Your task to perform on an android device: delete browsing data in the chrome app Image 0: 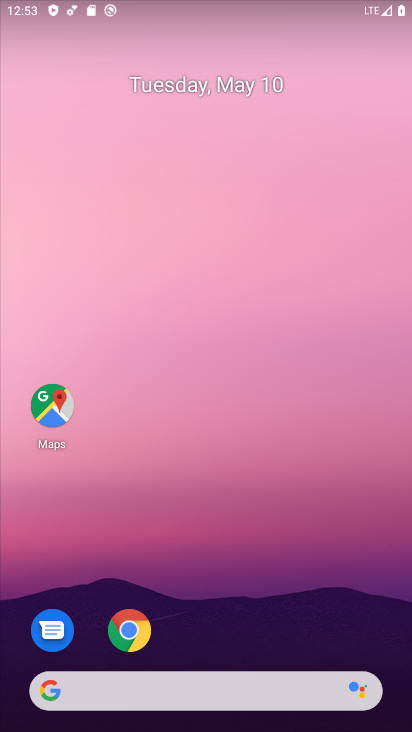
Step 0: drag from (212, 659) to (219, 20)
Your task to perform on an android device: delete browsing data in the chrome app Image 1: 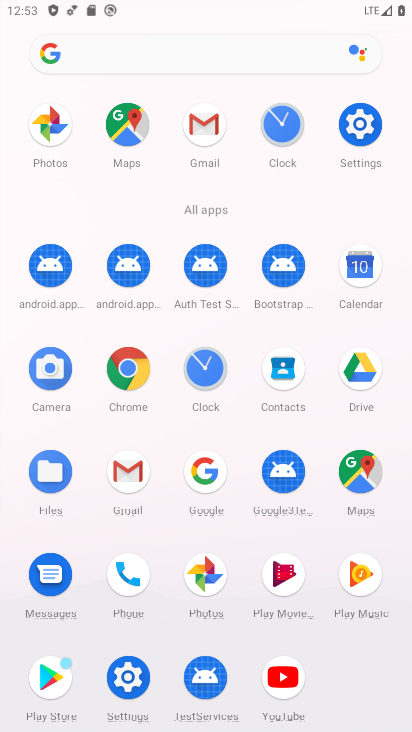
Step 1: click (116, 364)
Your task to perform on an android device: delete browsing data in the chrome app Image 2: 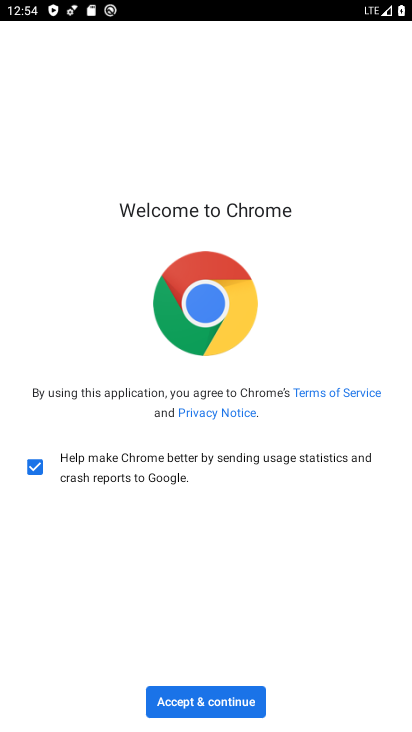
Step 2: click (216, 700)
Your task to perform on an android device: delete browsing data in the chrome app Image 3: 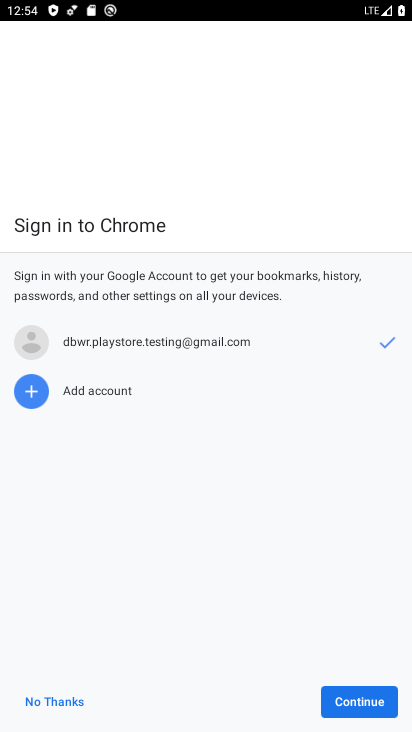
Step 3: click (336, 697)
Your task to perform on an android device: delete browsing data in the chrome app Image 4: 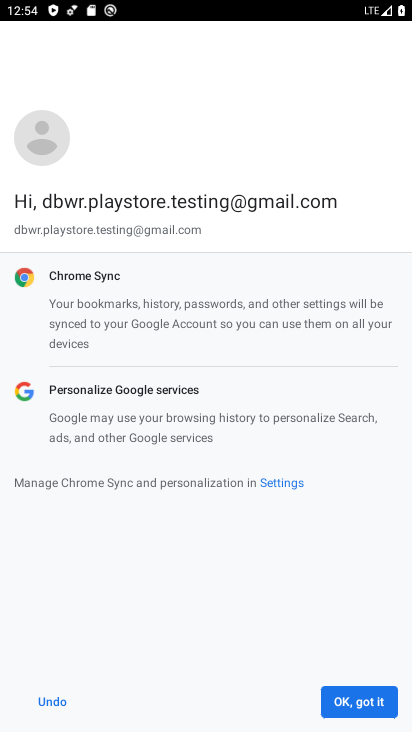
Step 4: click (340, 696)
Your task to perform on an android device: delete browsing data in the chrome app Image 5: 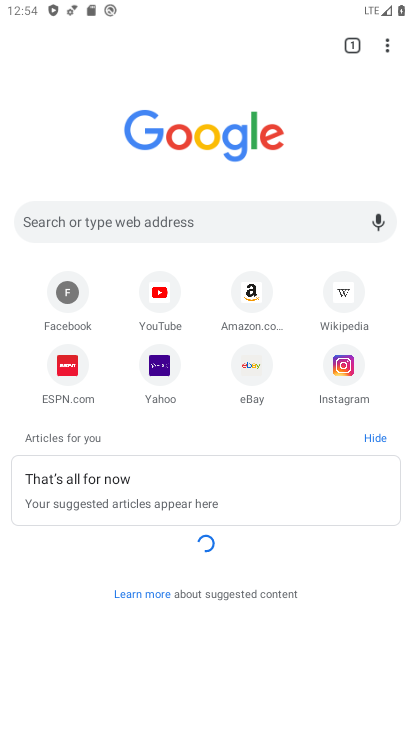
Step 5: click (384, 52)
Your task to perform on an android device: delete browsing data in the chrome app Image 6: 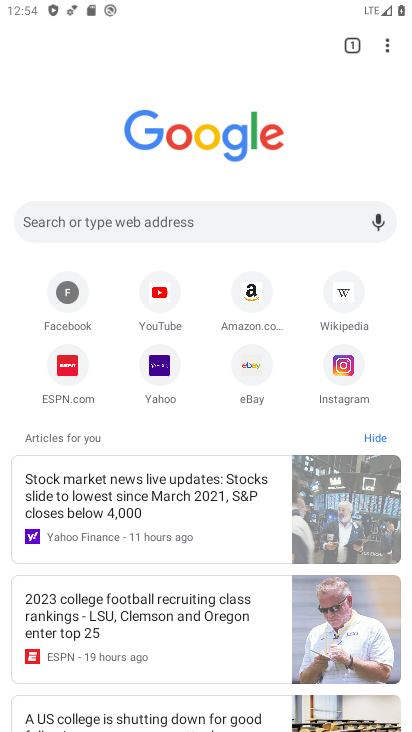
Step 6: task complete